Your task to perform on an android device: Go to Reddit.com Image 0: 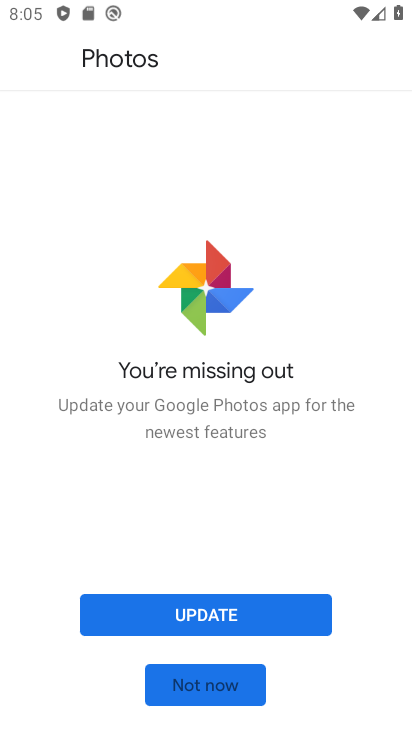
Step 0: press home button
Your task to perform on an android device: Go to Reddit.com Image 1: 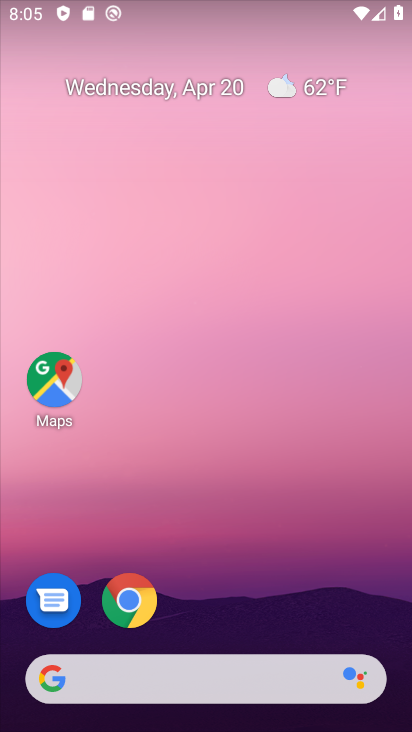
Step 1: click (126, 600)
Your task to perform on an android device: Go to Reddit.com Image 2: 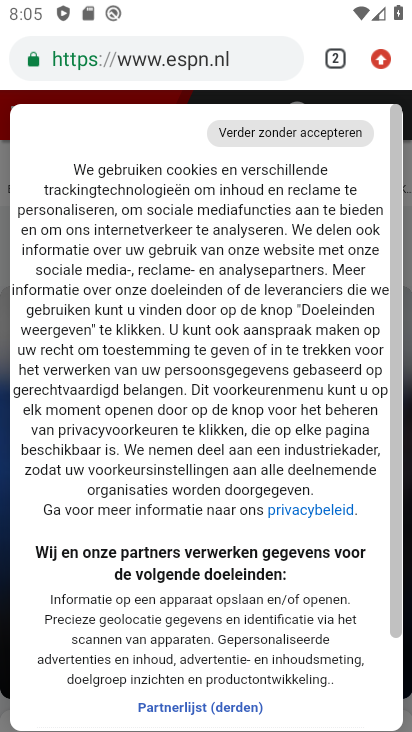
Step 2: click (381, 58)
Your task to perform on an android device: Go to Reddit.com Image 3: 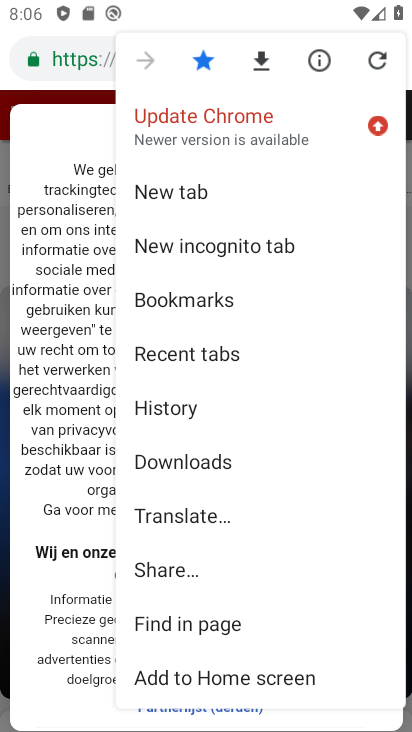
Step 3: click (172, 189)
Your task to perform on an android device: Go to Reddit.com Image 4: 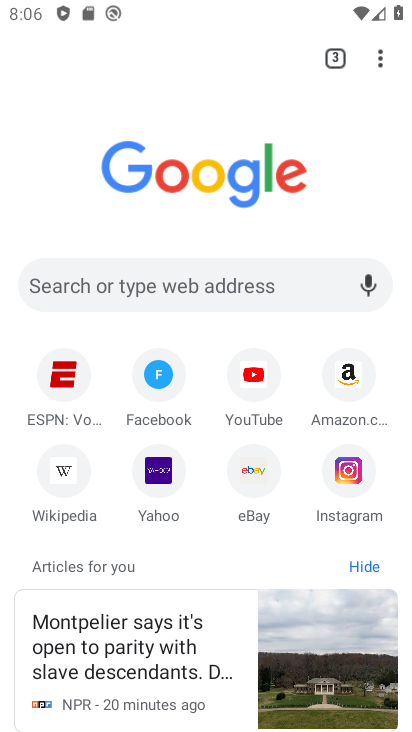
Step 4: click (156, 274)
Your task to perform on an android device: Go to Reddit.com Image 5: 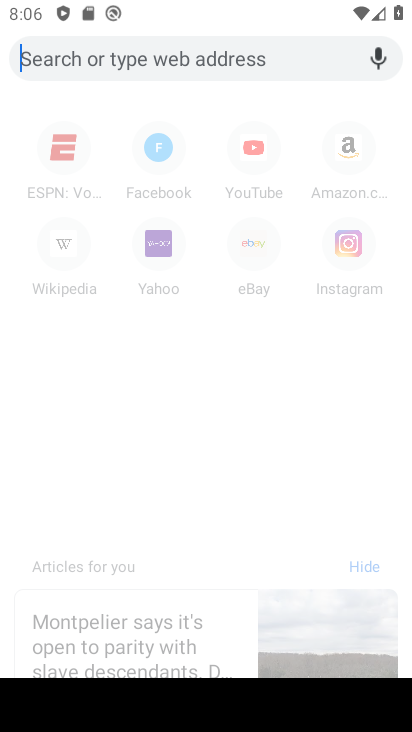
Step 5: type "Reddit.com"
Your task to perform on an android device: Go to Reddit.com Image 6: 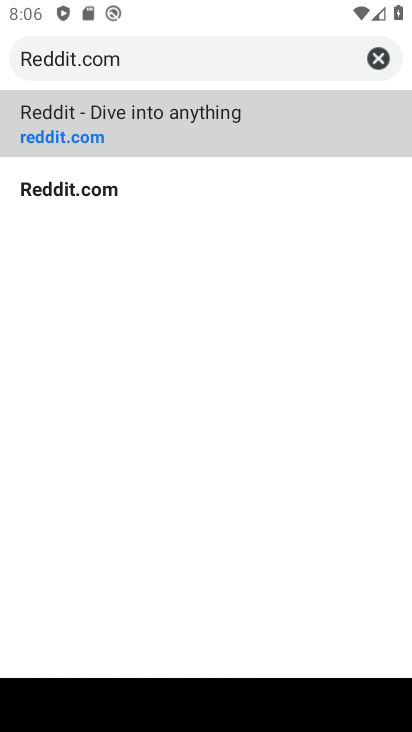
Step 6: click (76, 115)
Your task to perform on an android device: Go to Reddit.com Image 7: 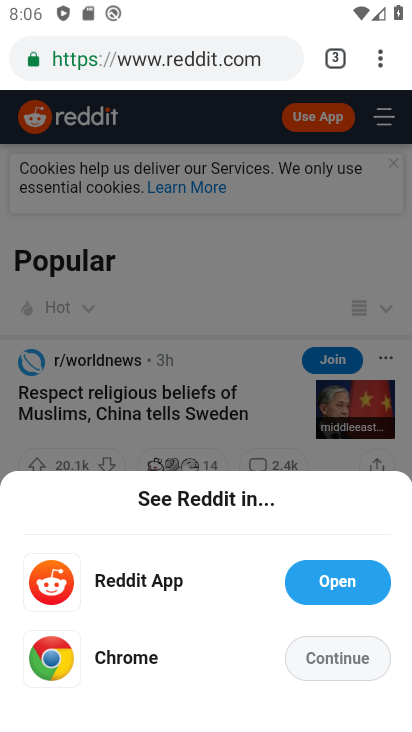
Step 7: task complete